Your task to perform on an android device: Go to Maps Image 0: 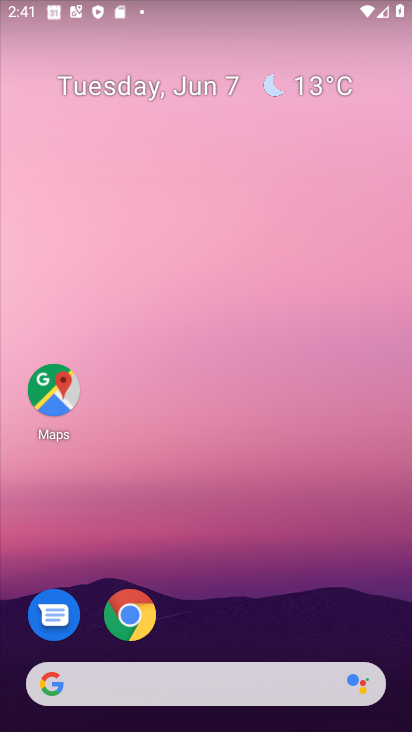
Step 0: click (45, 408)
Your task to perform on an android device: Go to Maps Image 1: 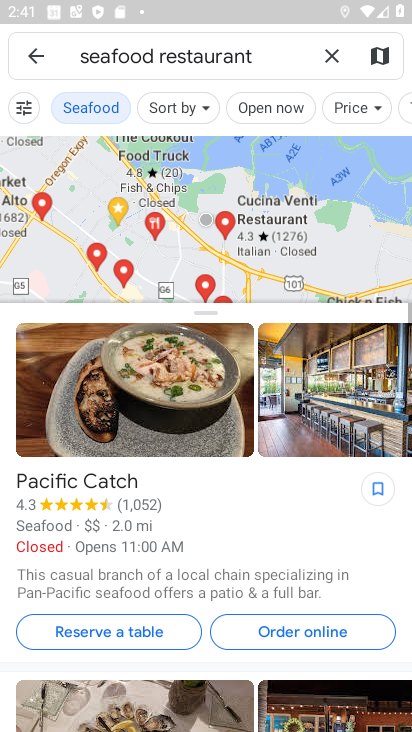
Step 1: task complete